Your task to perform on an android device: find snoozed emails in the gmail app Image 0: 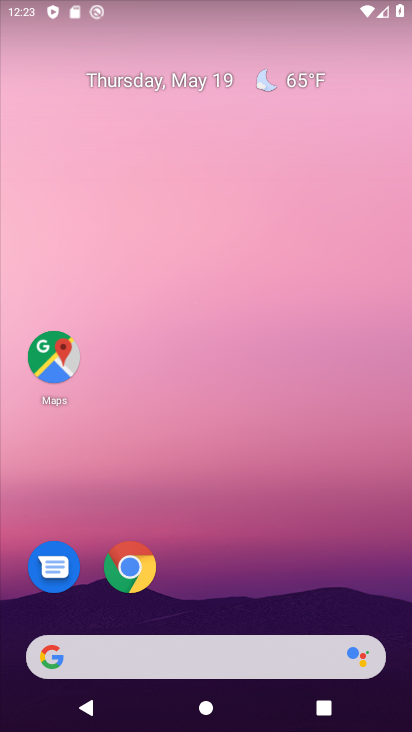
Step 0: drag from (252, 566) to (250, 16)
Your task to perform on an android device: find snoozed emails in the gmail app Image 1: 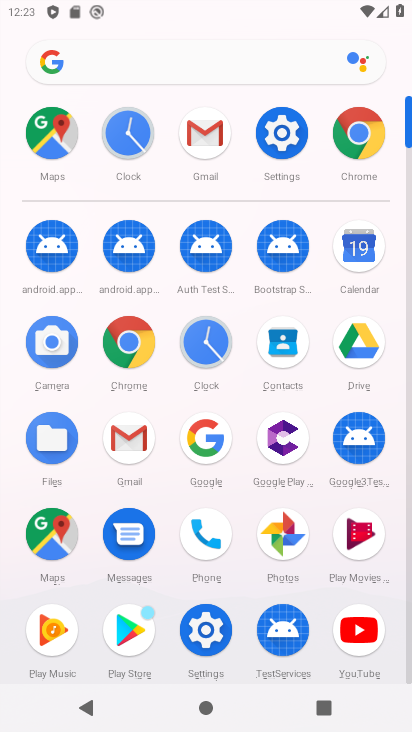
Step 1: click (128, 455)
Your task to perform on an android device: find snoozed emails in the gmail app Image 2: 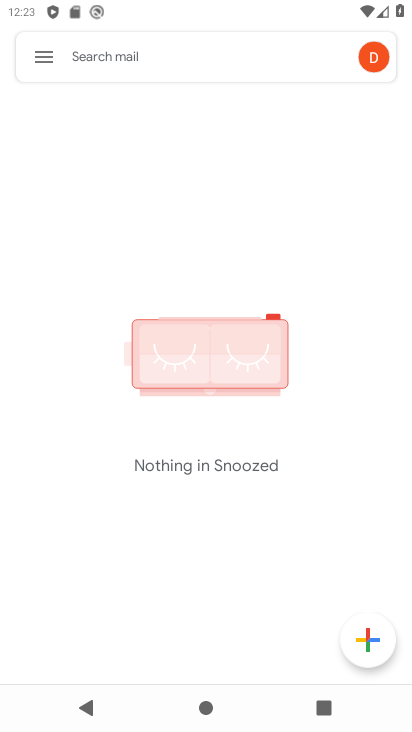
Step 2: click (50, 60)
Your task to perform on an android device: find snoozed emails in the gmail app Image 3: 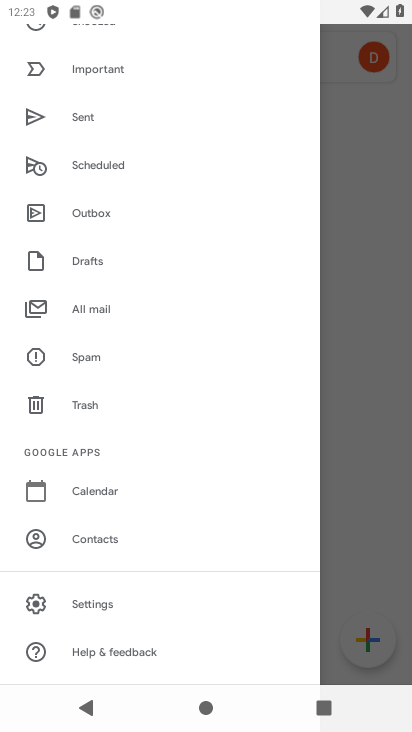
Step 3: drag from (140, 107) to (145, 448)
Your task to perform on an android device: find snoozed emails in the gmail app Image 4: 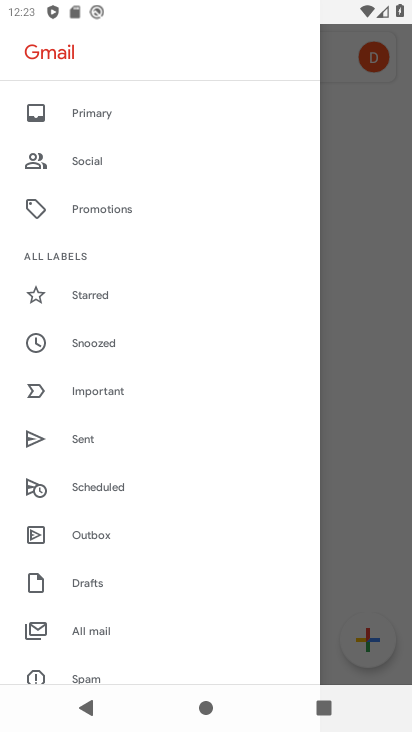
Step 4: click (113, 339)
Your task to perform on an android device: find snoozed emails in the gmail app Image 5: 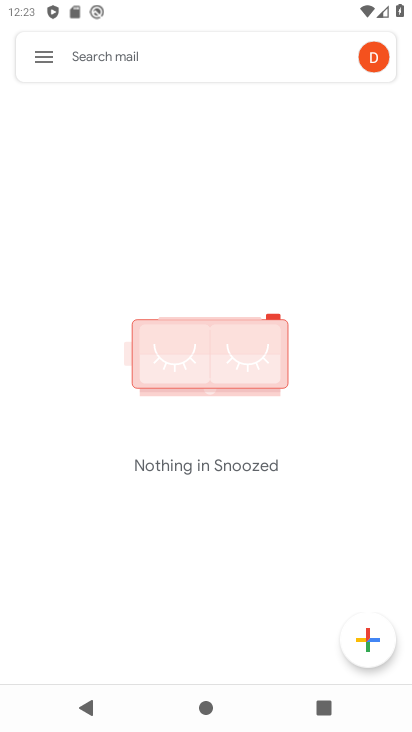
Step 5: task complete